Your task to perform on an android device: Go to eBay Image 0: 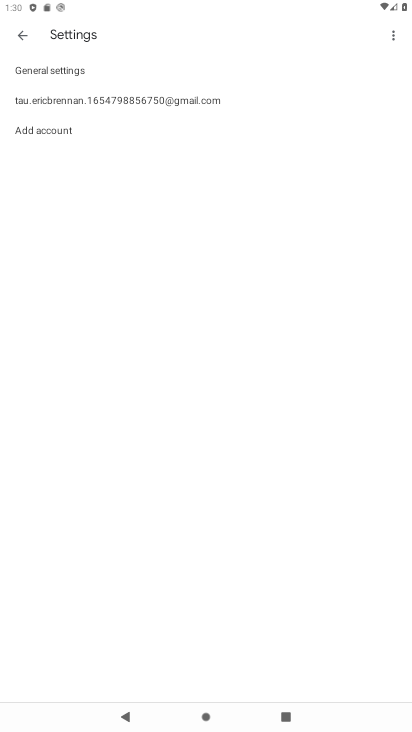
Step 0: press back button
Your task to perform on an android device: Go to eBay Image 1: 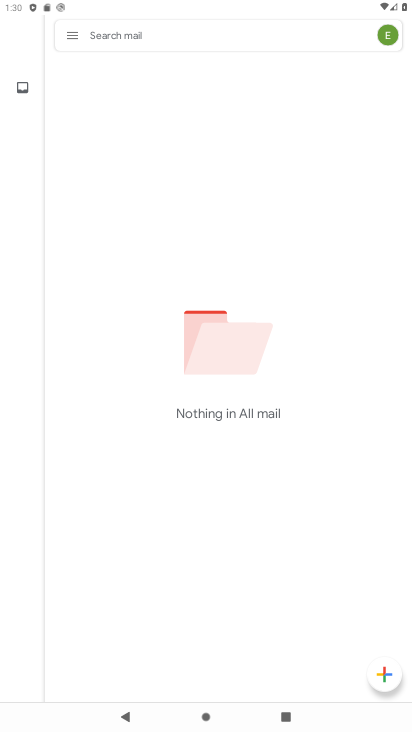
Step 1: press back button
Your task to perform on an android device: Go to eBay Image 2: 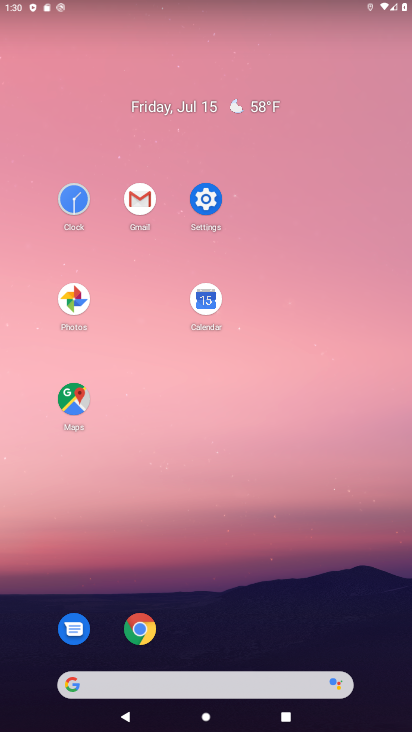
Step 2: click (144, 633)
Your task to perform on an android device: Go to eBay Image 3: 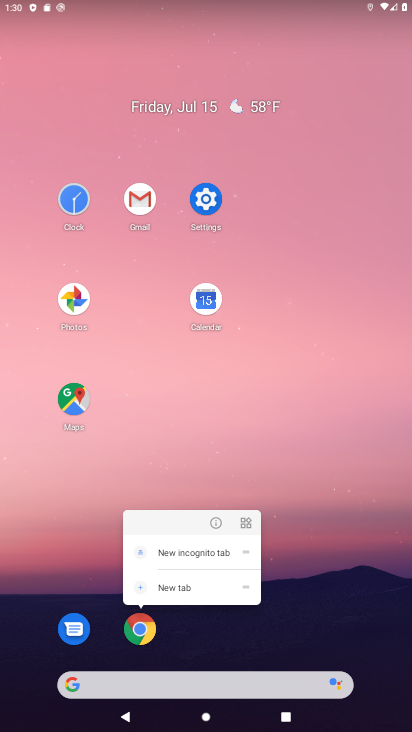
Step 3: click (130, 648)
Your task to perform on an android device: Go to eBay Image 4: 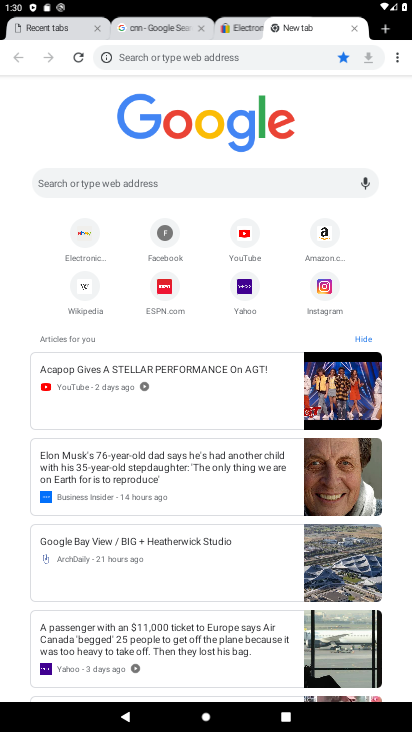
Step 4: click (89, 244)
Your task to perform on an android device: Go to eBay Image 5: 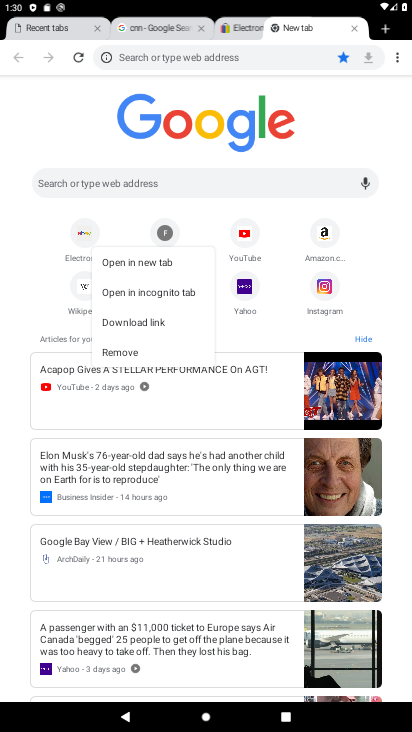
Step 5: click (87, 230)
Your task to perform on an android device: Go to eBay Image 6: 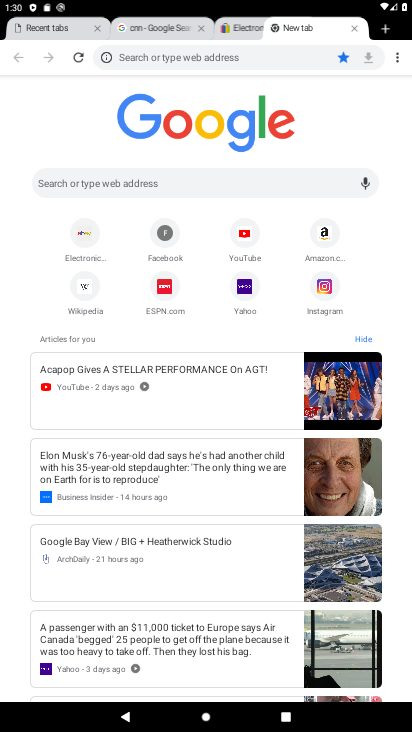
Step 6: click (87, 230)
Your task to perform on an android device: Go to eBay Image 7: 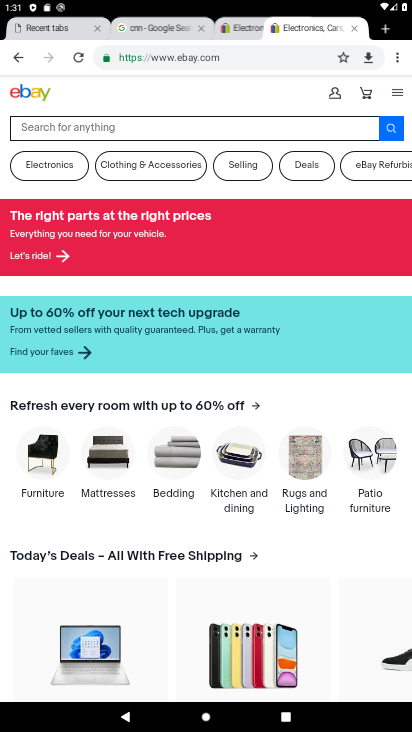
Step 7: task complete